Your task to perform on an android device: turn vacation reply on in the gmail app Image 0: 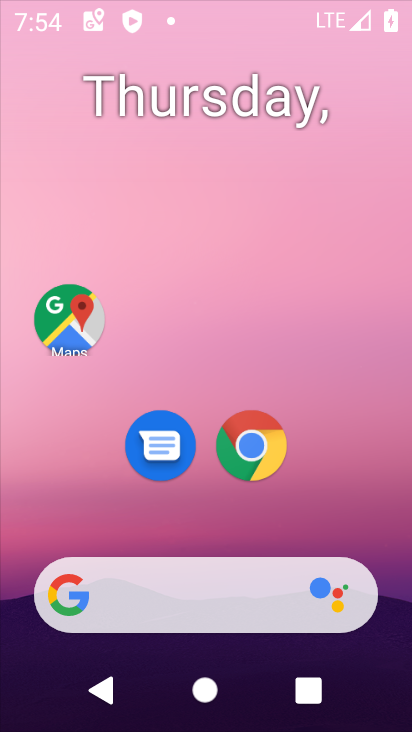
Step 0: drag from (210, 535) to (222, 112)
Your task to perform on an android device: turn vacation reply on in the gmail app Image 1: 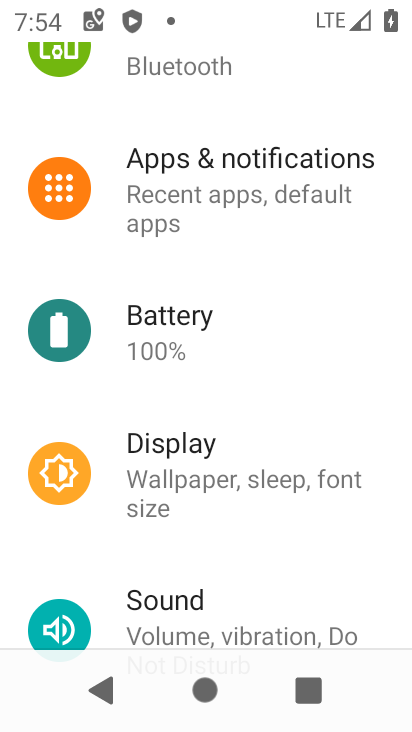
Step 1: press home button
Your task to perform on an android device: turn vacation reply on in the gmail app Image 2: 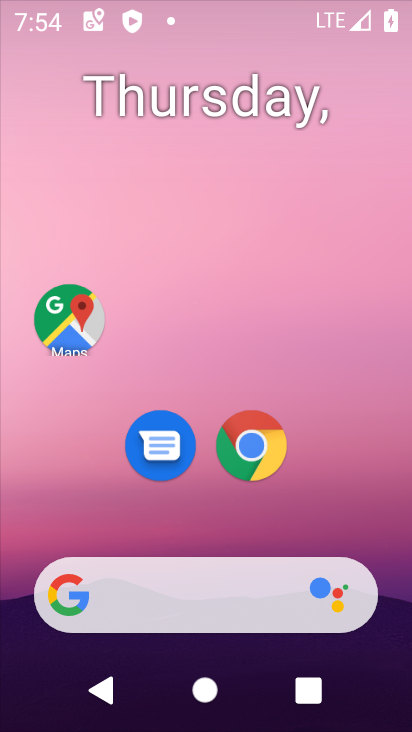
Step 2: drag from (229, 519) to (261, 179)
Your task to perform on an android device: turn vacation reply on in the gmail app Image 3: 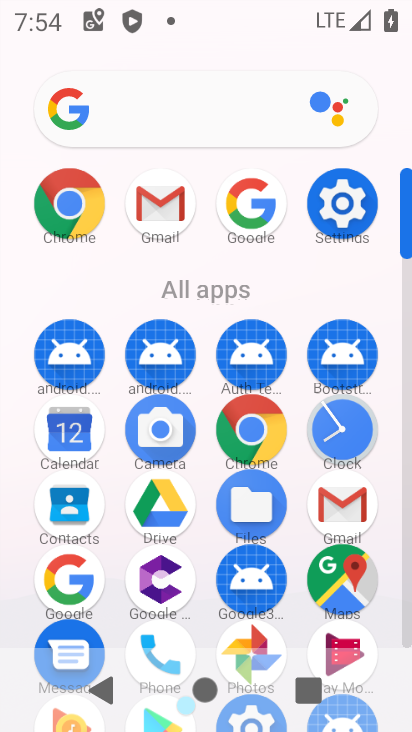
Step 3: click (347, 499)
Your task to perform on an android device: turn vacation reply on in the gmail app Image 4: 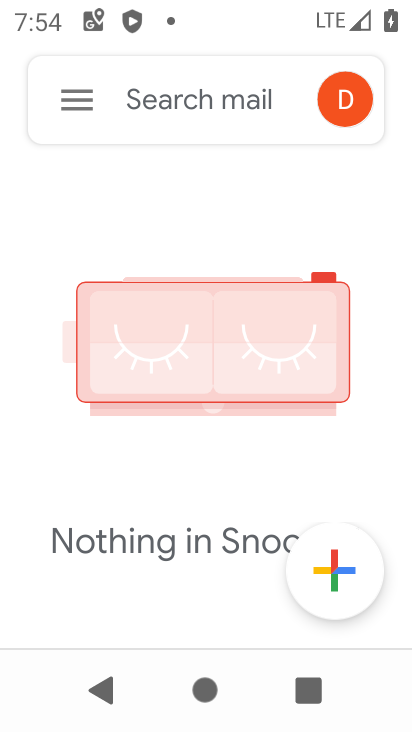
Step 4: click (51, 103)
Your task to perform on an android device: turn vacation reply on in the gmail app Image 5: 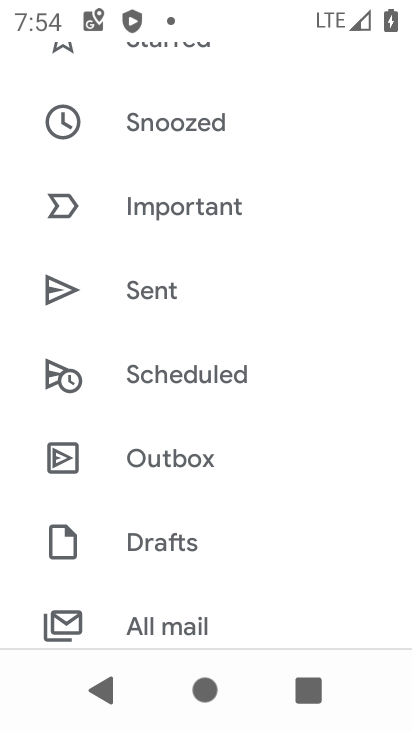
Step 5: drag from (179, 563) to (308, 62)
Your task to perform on an android device: turn vacation reply on in the gmail app Image 6: 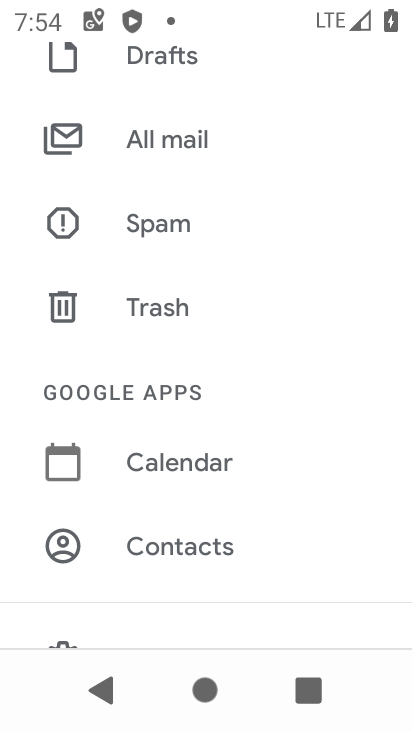
Step 6: drag from (155, 532) to (252, 46)
Your task to perform on an android device: turn vacation reply on in the gmail app Image 7: 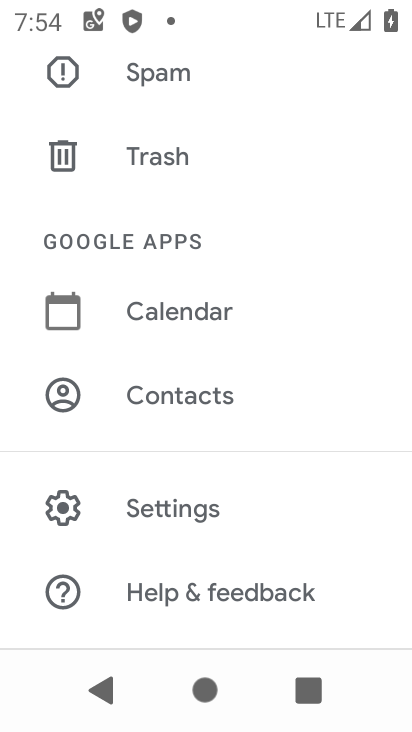
Step 7: click (160, 526)
Your task to perform on an android device: turn vacation reply on in the gmail app Image 8: 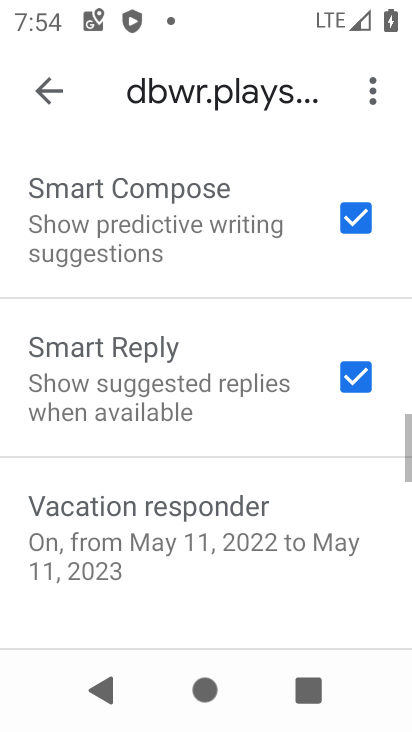
Step 8: drag from (204, 563) to (240, 296)
Your task to perform on an android device: turn vacation reply on in the gmail app Image 9: 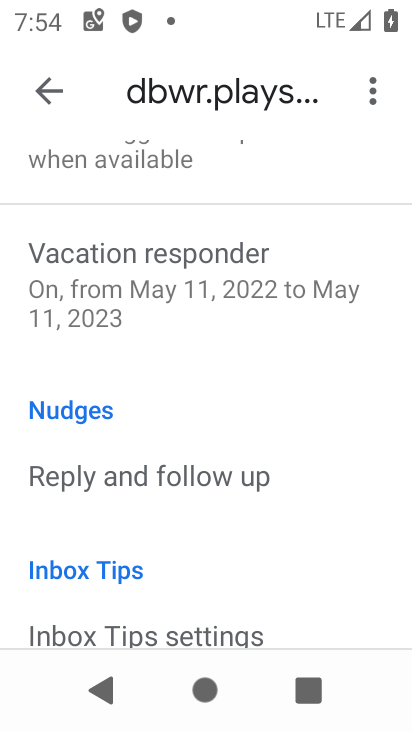
Step 9: click (174, 271)
Your task to perform on an android device: turn vacation reply on in the gmail app Image 10: 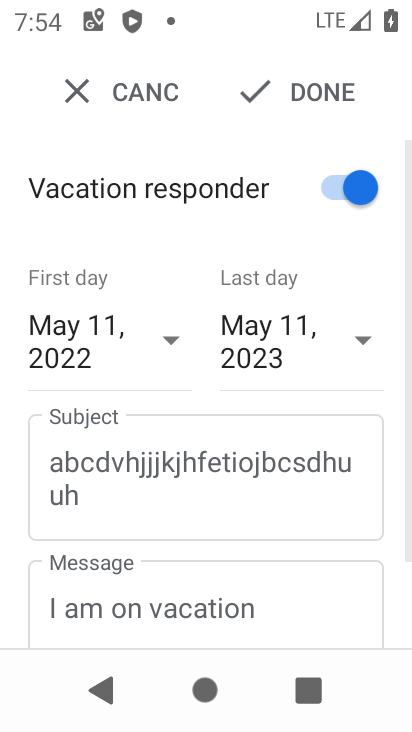
Step 10: click (295, 100)
Your task to perform on an android device: turn vacation reply on in the gmail app Image 11: 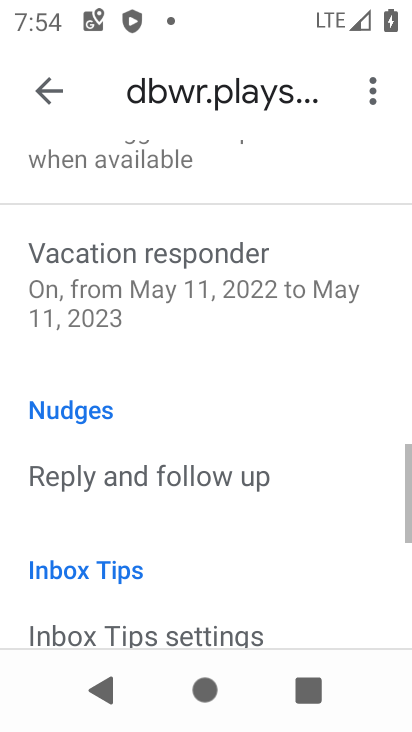
Step 11: task complete